Your task to perform on an android device: move a message to another label in the gmail app Image 0: 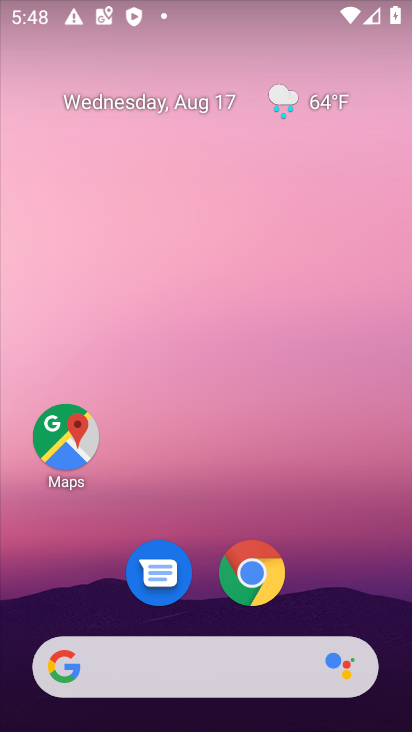
Step 0: drag from (305, 325) to (265, 23)
Your task to perform on an android device: move a message to another label in the gmail app Image 1: 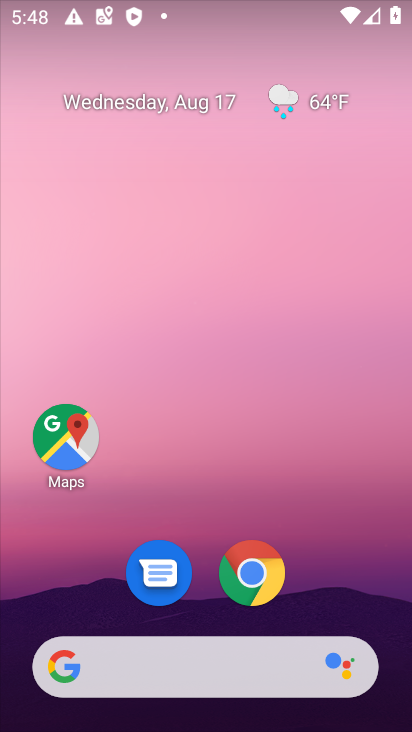
Step 1: drag from (297, 475) to (230, 130)
Your task to perform on an android device: move a message to another label in the gmail app Image 2: 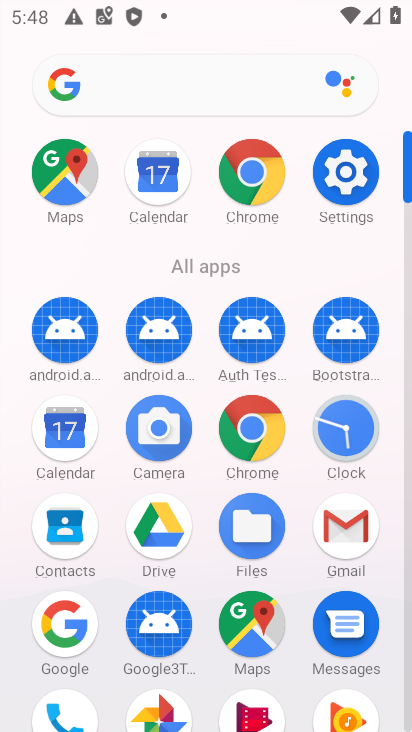
Step 2: click (349, 530)
Your task to perform on an android device: move a message to another label in the gmail app Image 3: 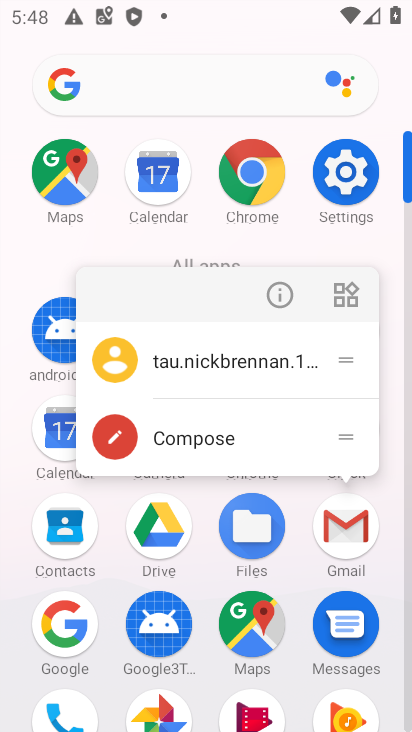
Step 3: click (349, 527)
Your task to perform on an android device: move a message to another label in the gmail app Image 4: 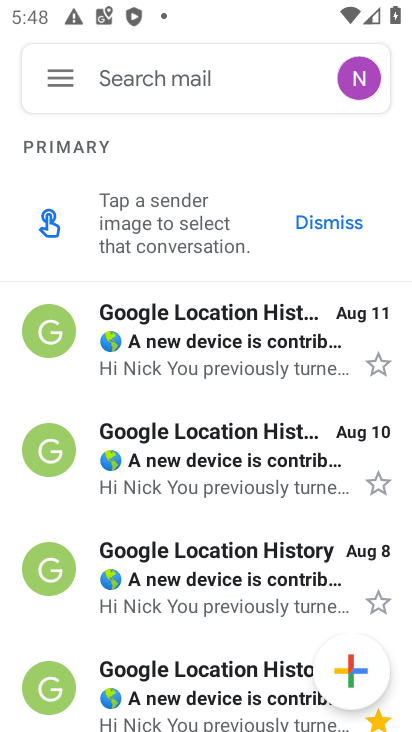
Step 4: click (156, 354)
Your task to perform on an android device: move a message to another label in the gmail app Image 5: 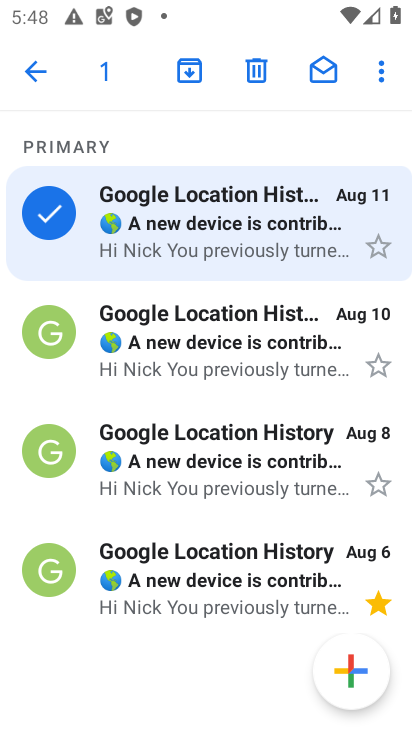
Step 5: click (28, 222)
Your task to perform on an android device: move a message to another label in the gmail app Image 6: 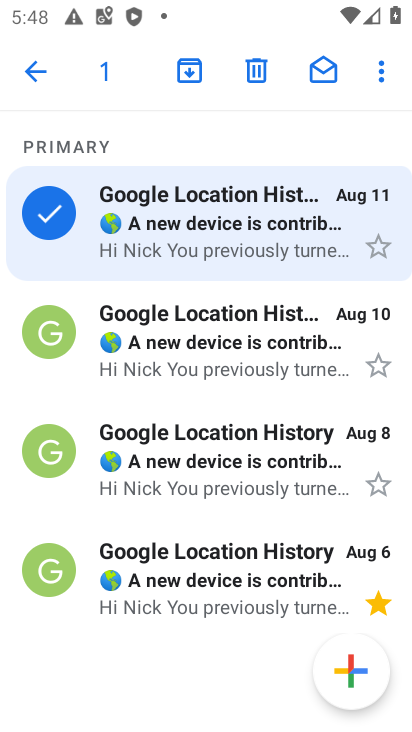
Step 6: click (51, 211)
Your task to perform on an android device: move a message to another label in the gmail app Image 7: 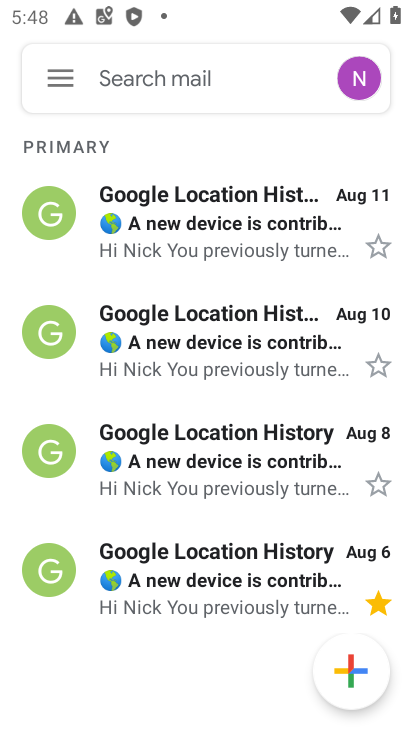
Step 7: click (193, 216)
Your task to perform on an android device: move a message to another label in the gmail app Image 8: 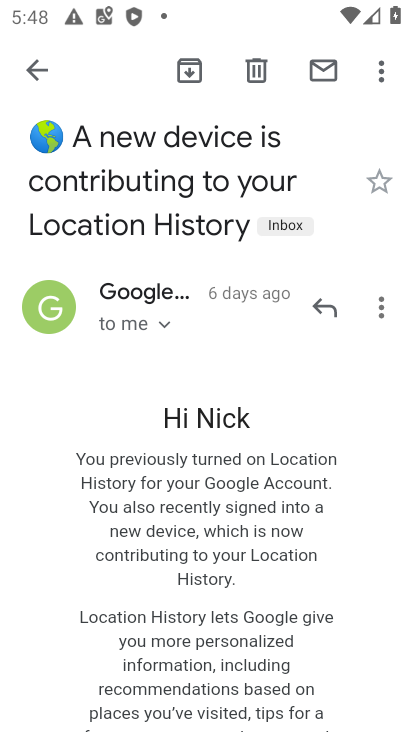
Step 8: click (382, 77)
Your task to perform on an android device: move a message to another label in the gmail app Image 9: 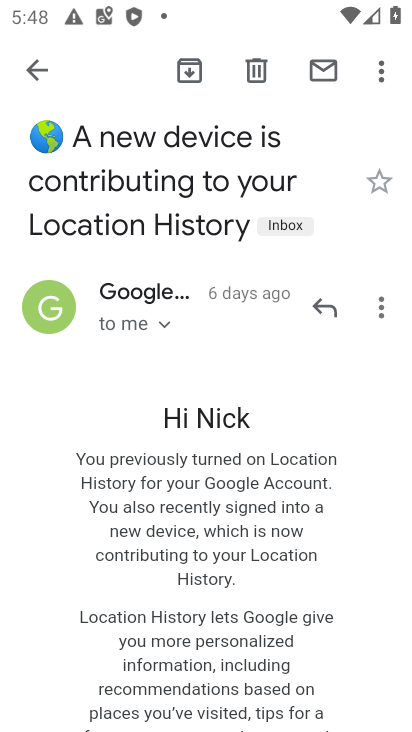
Step 9: click (381, 78)
Your task to perform on an android device: move a message to another label in the gmail app Image 10: 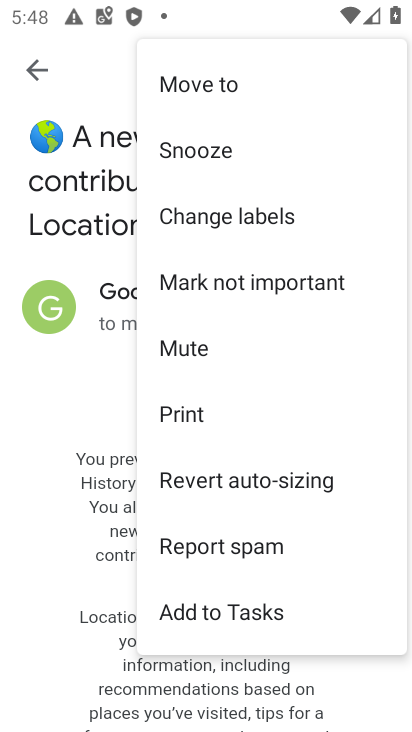
Step 10: click (263, 217)
Your task to perform on an android device: move a message to another label in the gmail app Image 11: 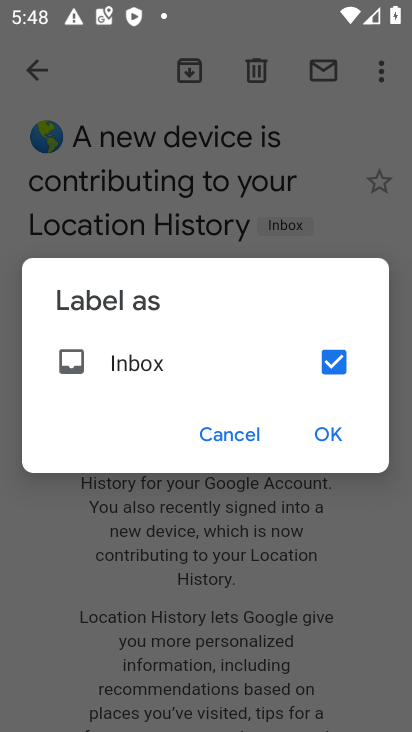
Step 11: click (332, 361)
Your task to perform on an android device: move a message to another label in the gmail app Image 12: 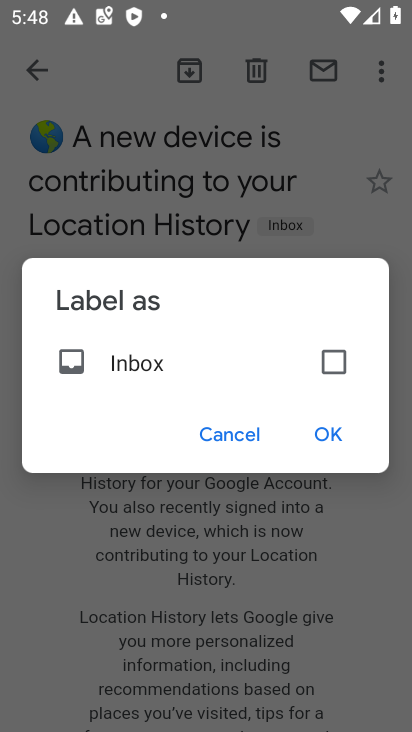
Step 12: click (341, 441)
Your task to perform on an android device: move a message to another label in the gmail app Image 13: 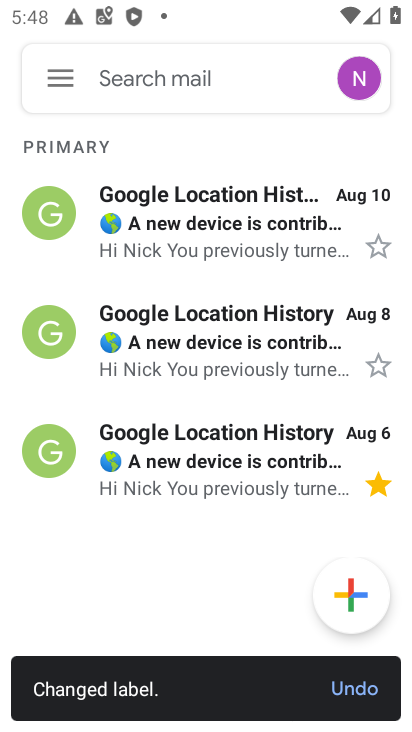
Step 13: task complete